Your task to perform on an android device: toggle priority inbox in the gmail app Image 0: 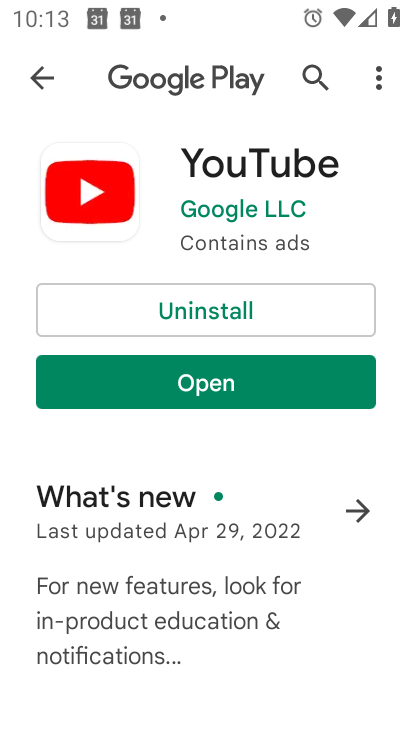
Step 0: press home button
Your task to perform on an android device: toggle priority inbox in the gmail app Image 1: 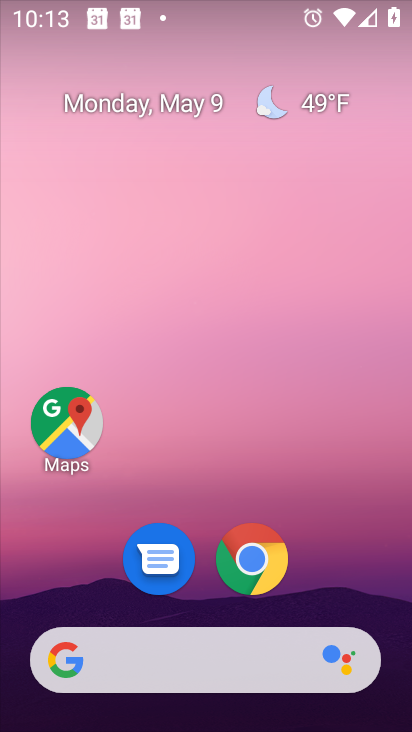
Step 1: drag from (216, 695) to (216, 154)
Your task to perform on an android device: toggle priority inbox in the gmail app Image 2: 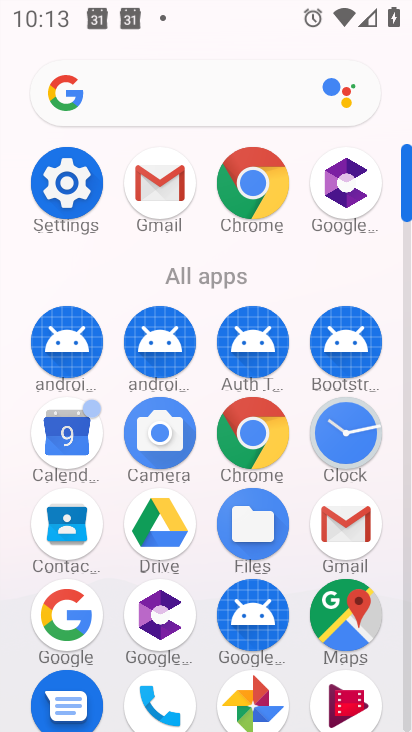
Step 2: click (346, 530)
Your task to perform on an android device: toggle priority inbox in the gmail app Image 3: 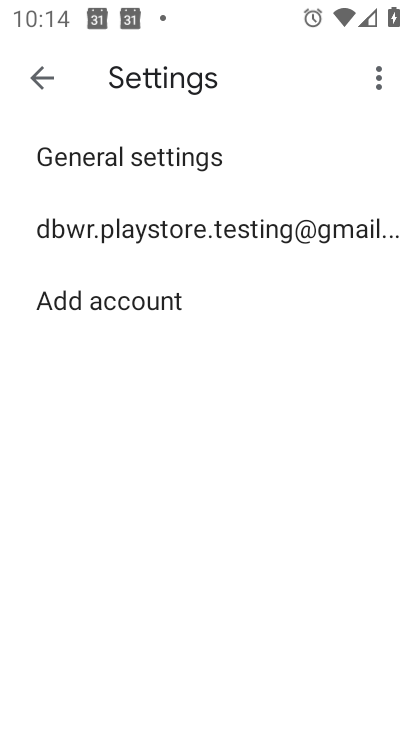
Step 3: click (208, 226)
Your task to perform on an android device: toggle priority inbox in the gmail app Image 4: 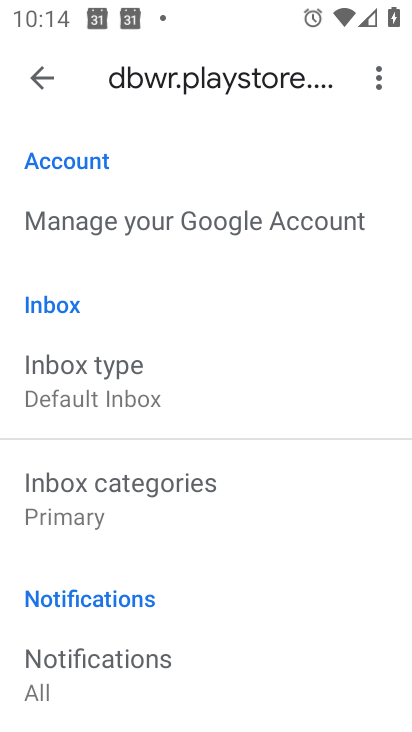
Step 4: click (80, 402)
Your task to perform on an android device: toggle priority inbox in the gmail app Image 5: 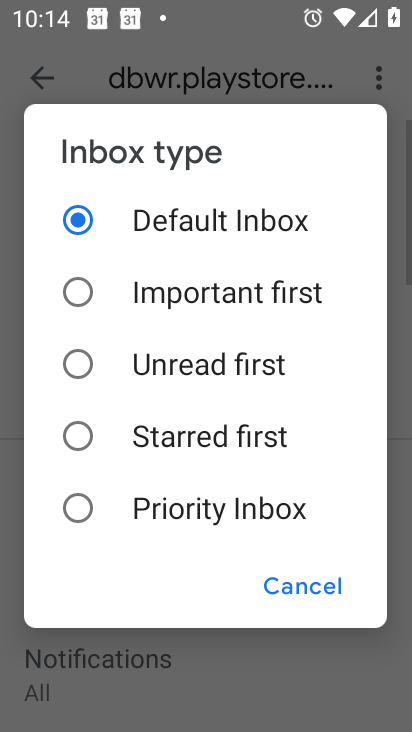
Step 5: click (75, 501)
Your task to perform on an android device: toggle priority inbox in the gmail app Image 6: 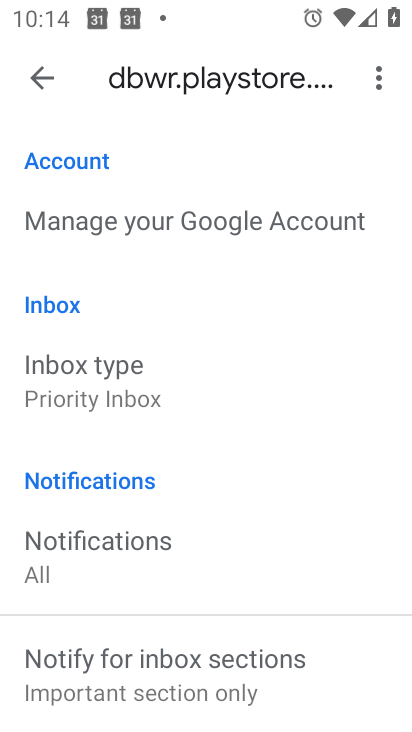
Step 6: task complete